Your task to perform on an android device: turn on data saver in the chrome app Image 0: 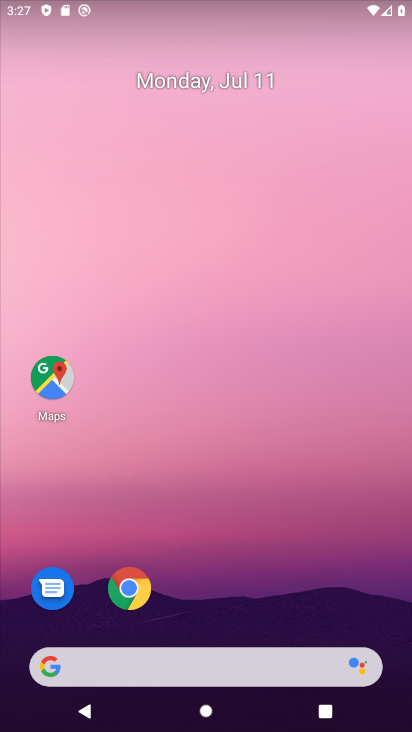
Step 0: press home button
Your task to perform on an android device: turn on data saver in the chrome app Image 1: 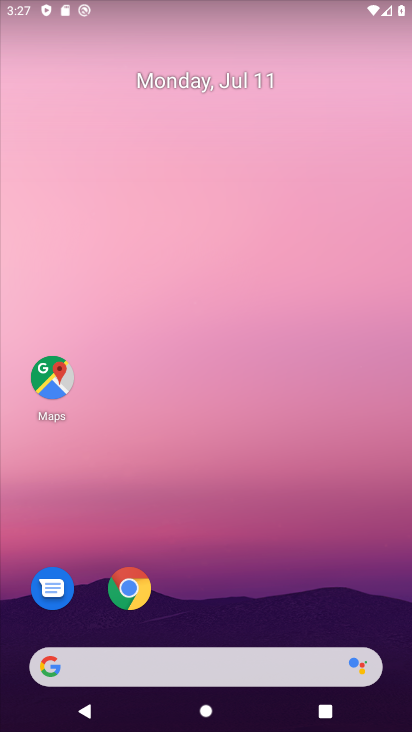
Step 1: click (129, 590)
Your task to perform on an android device: turn on data saver in the chrome app Image 2: 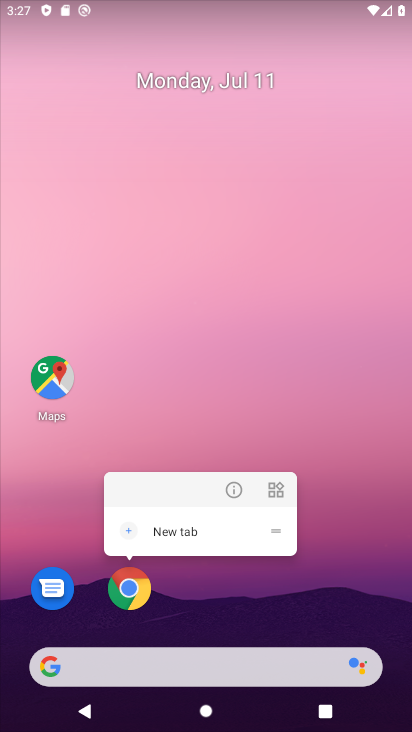
Step 2: click (278, 604)
Your task to perform on an android device: turn on data saver in the chrome app Image 3: 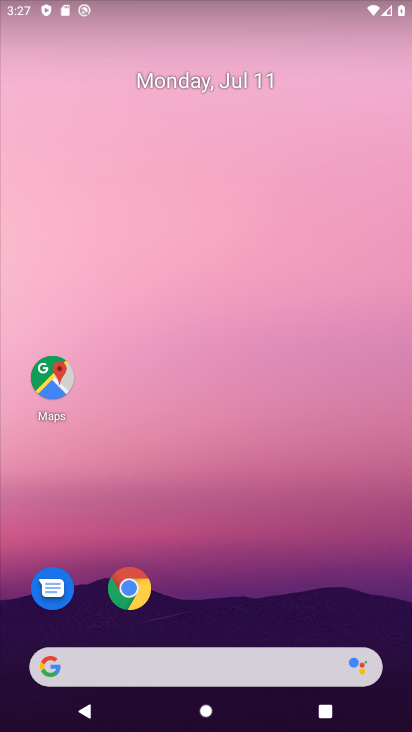
Step 3: drag from (267, 615) to (253, 151)
Your task to perform on an android device: turn on data saver in the chrome app Image 4: 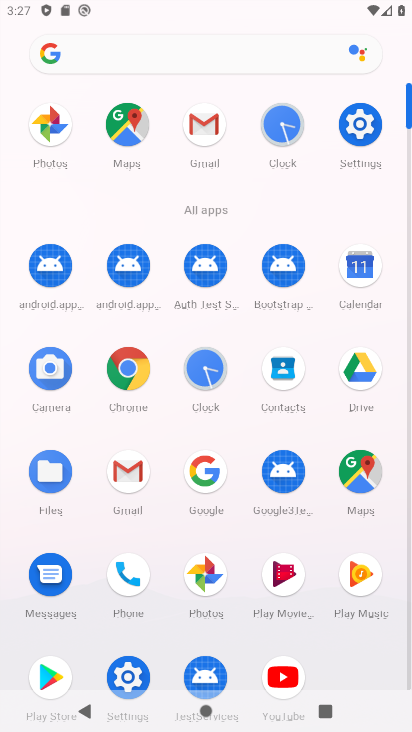
Step 4: click (129, 373)
Your task to perform on an android device: turn on data saver in the chrome app Image 5: 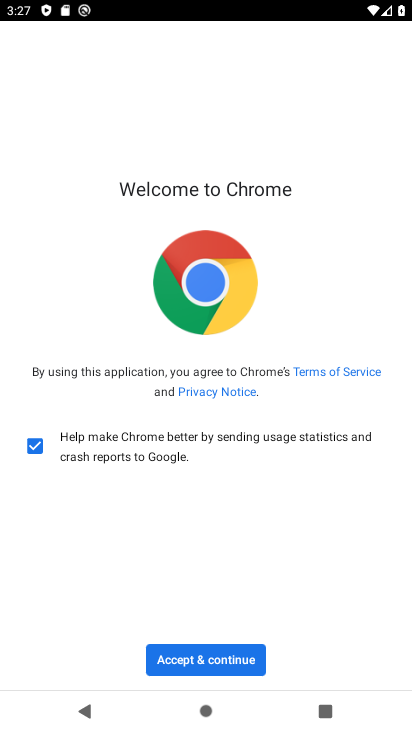
Step 5: click (201, 652)
Your task to perform on an android device: turn on data saver in the chrome app Image 6: 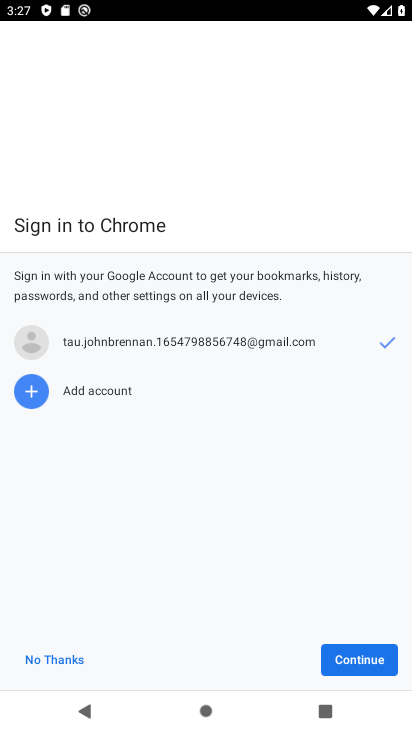
Step 6: click (380, 662)
Your task to perform on an android device: turn on data saver in the chrome app Image 7: 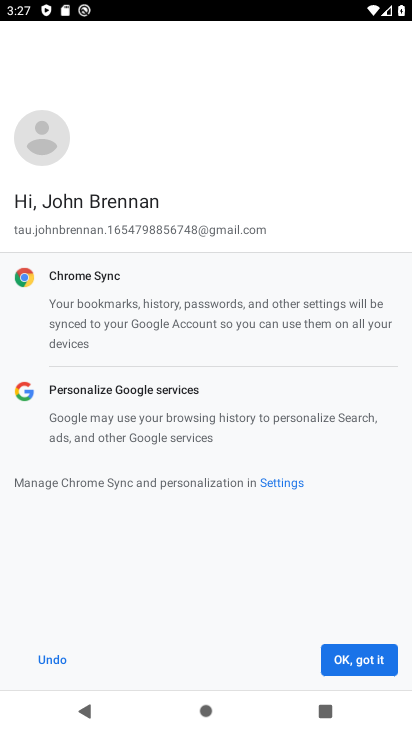
Step 7: click (380, 661)
Your task to perform on an android device: turn on data saver in the chrome app Image 8: 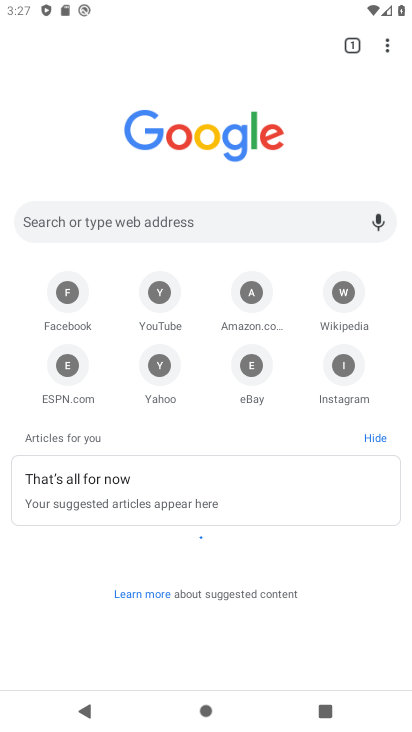
Step 8: drag from (386, 46) to (222, 375)
Your task to perform on an android device: turn on data saver in the chrome app Image 9: 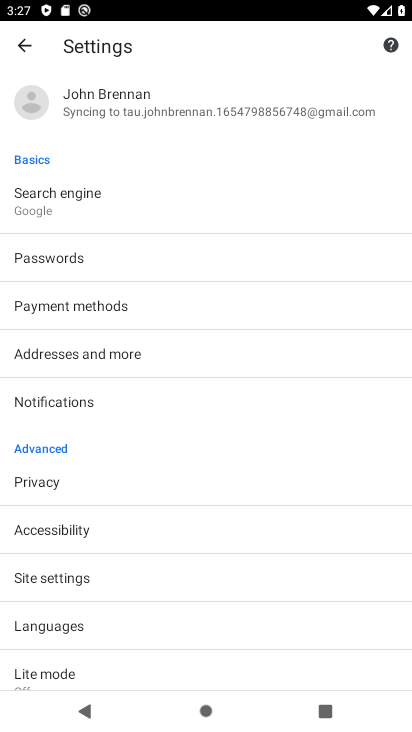
Step 9: click (51, 672)
Your task to perform on an android device: turn on data saver in the chrome app Image 10: 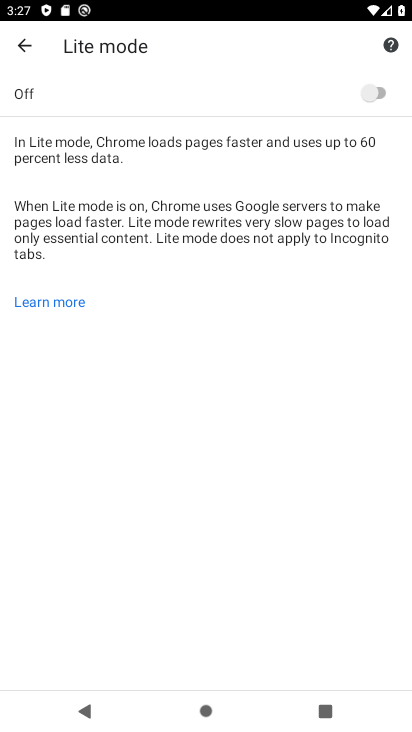
Step 10: click (366, 96)
Your task to perform on an android device: turn on data saver in the chrome app Image 11: 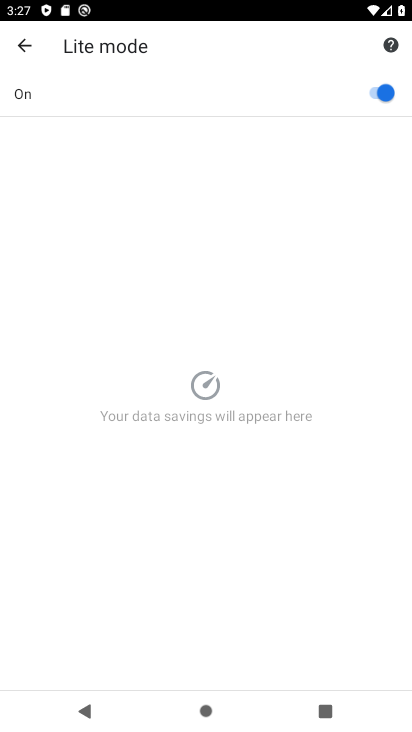
Step 11: task complete